Your task to perform on an android device: Show me popular games on the Play Store Image 0: 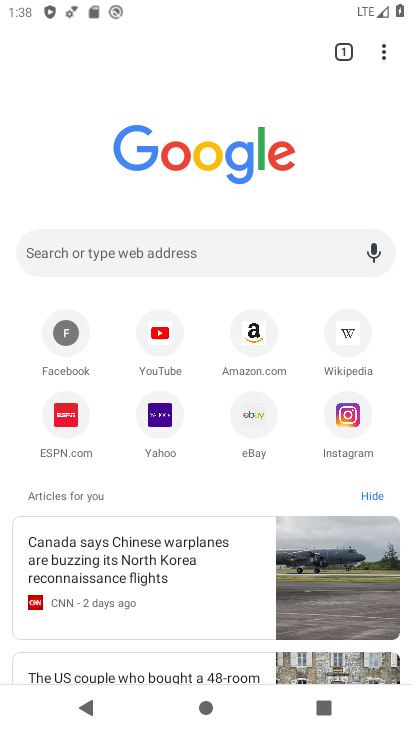
Step 0: press home button
Your task to perform on an android device: Show me popular games on the Play Store Image 1: 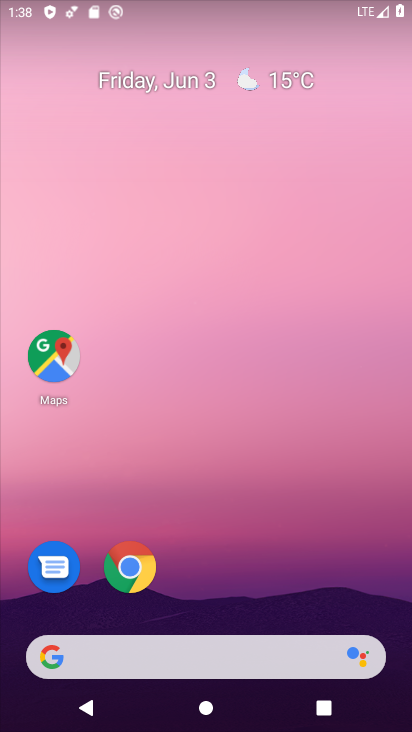
Step 1: drag from (173, 640) to (211, 160)
Your task to perform on an android device: Show me popular games on the Play Store Image 2: 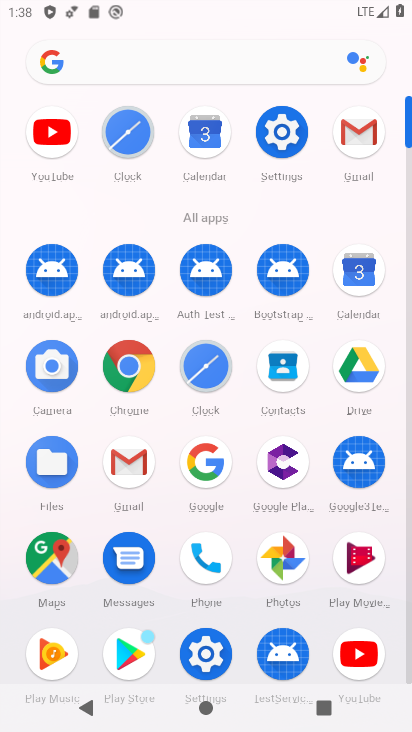
Step 2: click (127, 641)
Your task to perform on an android device: Show me popular games on the Play Store Image 3: 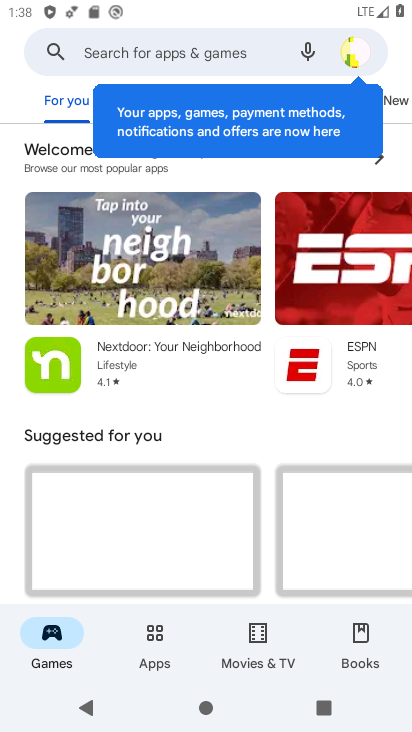
Step 3: click (217, 59)
Your task to perform on an android device: Show me popular games on the Play Store Image 4: 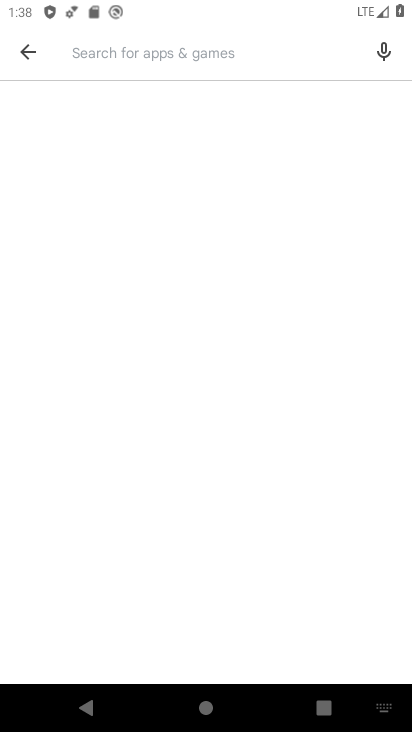
Step 4: type "popular games"
Your task to perform on an android device: Show me popular games on the Play Store Image 5: 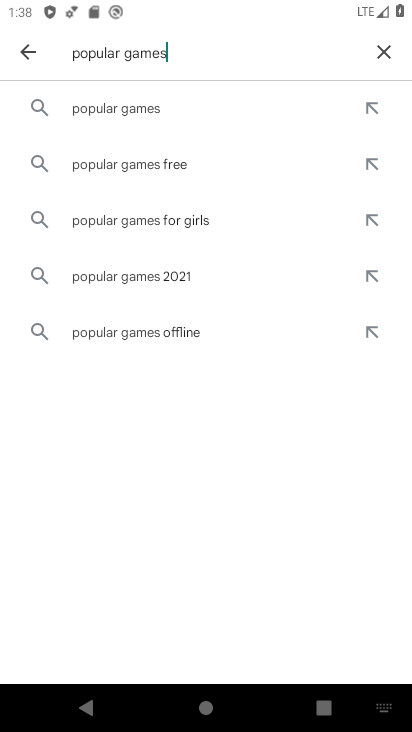
Step 5: click (164, 115)
Your task to perform on an android device: Show me popular games on the Play Store Image 6: 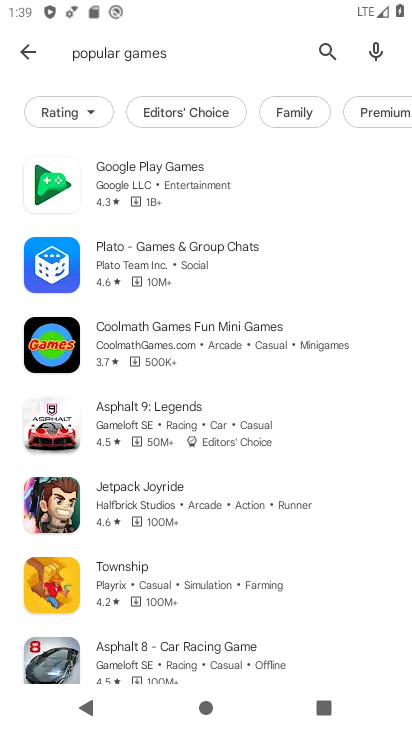
Step 6: task complete